Your task to perform on an android device: turn on the 12-hour format for clock Image 0: 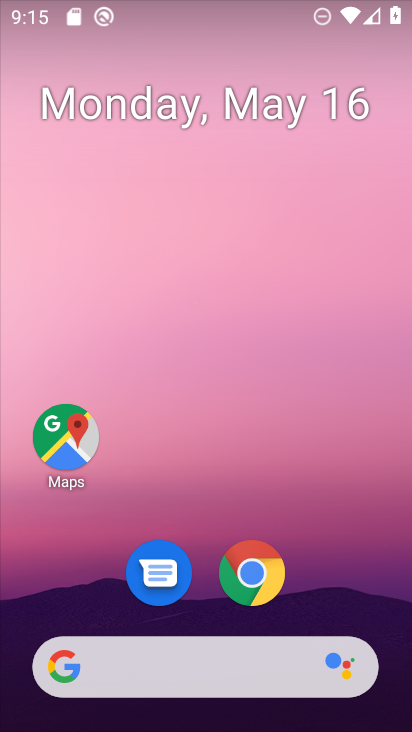
Step 0: drag from (383, 638) to (369, 105)
Your task to perform on an android device: turn on the 12-hour format for clock Image 1: 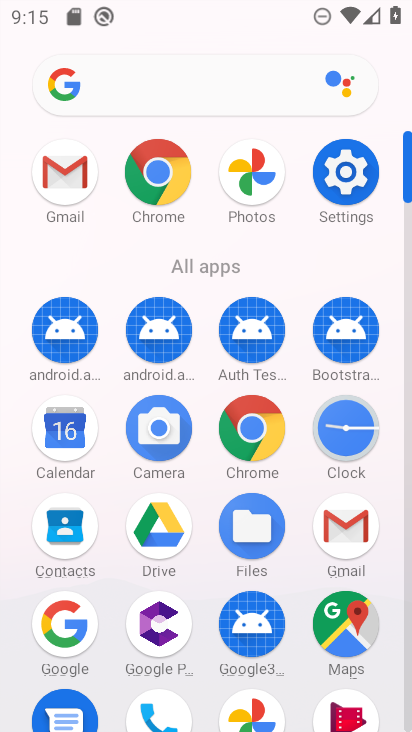
Step 1: click (349, 432)
Your task to perform on an android device: turn on the 12-hour format for clock Image 2: 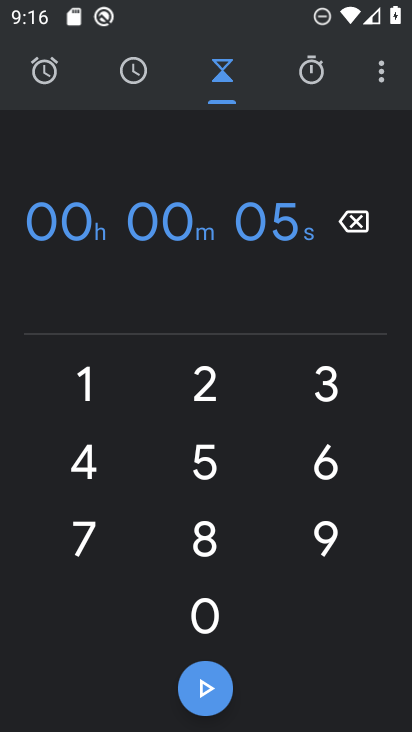
Step 2: drag from (380, 68) to (269, 149)
Your task to perform on an android device: turn on the 12-hour format for clock Image 3: 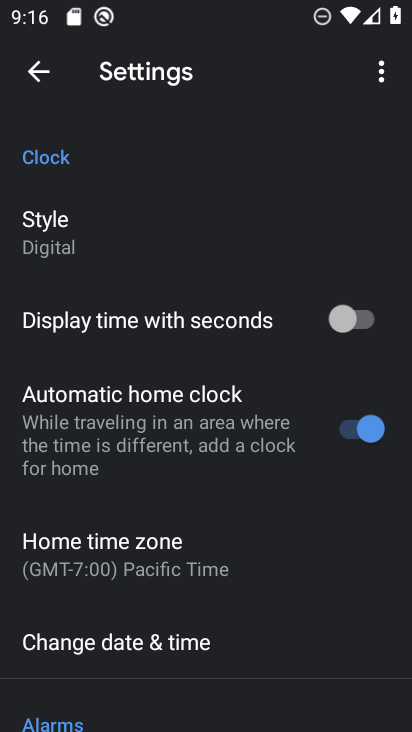
Step 3: click (191, 642)
Your task to perform on an android device: turn on the 12-hour format for clock Image 4: 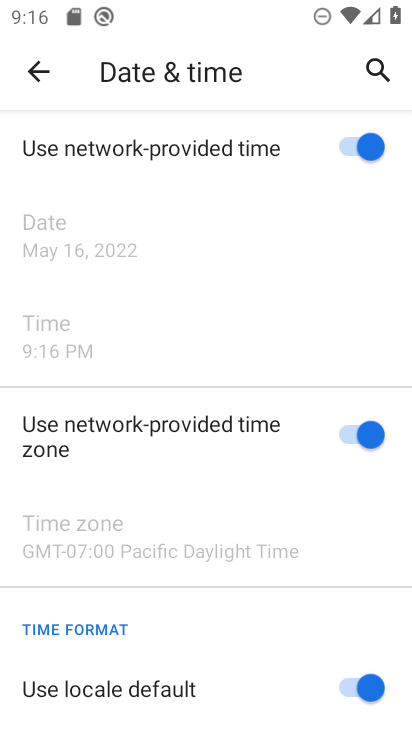
Step 4: task complete